Your task to perform on an android device: turn off location history Image 0: 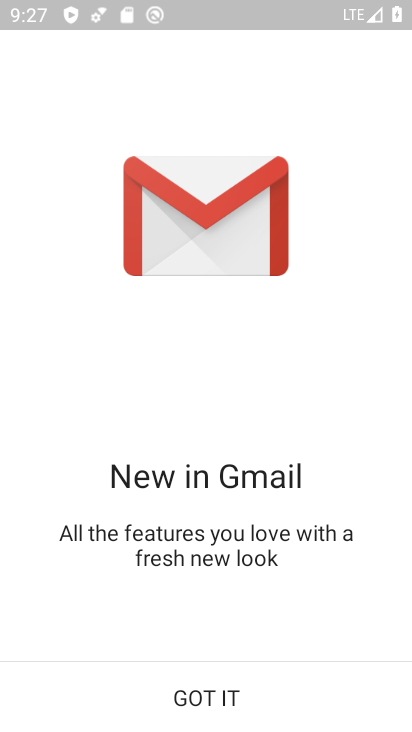
Step 0: press home button
Your task to perform on an android device: turn off location history Image 1: 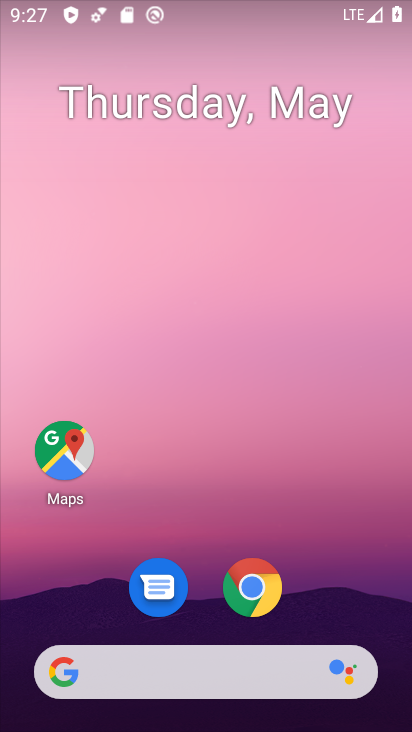
Step 1: click (57, 446)
Your task to perform on an android device: turn off location history Image 2: 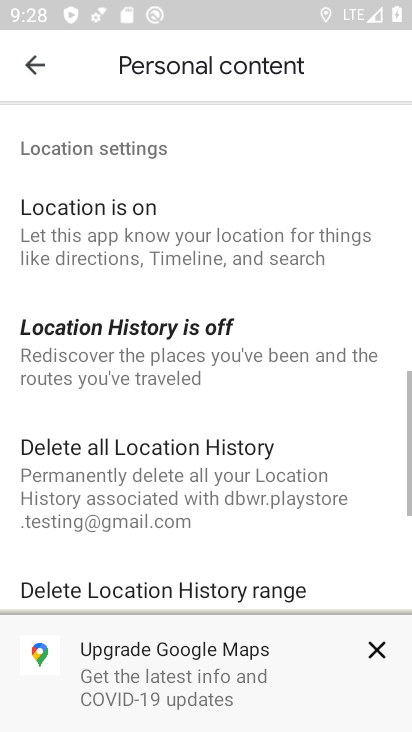
Step 2: click (112, 335)
Your task to perform on an android device: turn off location history Image 3: 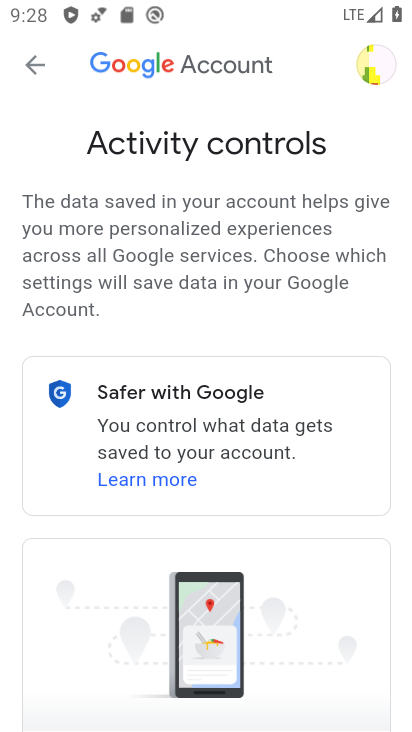
Step 3: drag from (292, 657) to (282, 111)
Your task to perform on an android device: turn off location history Image 4: 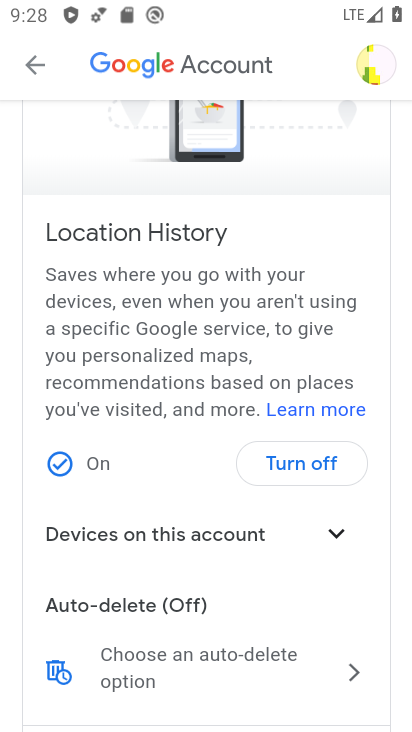
Step 4: click (293, 460)
Your task to perform on an android device: turn off location history Image 5: 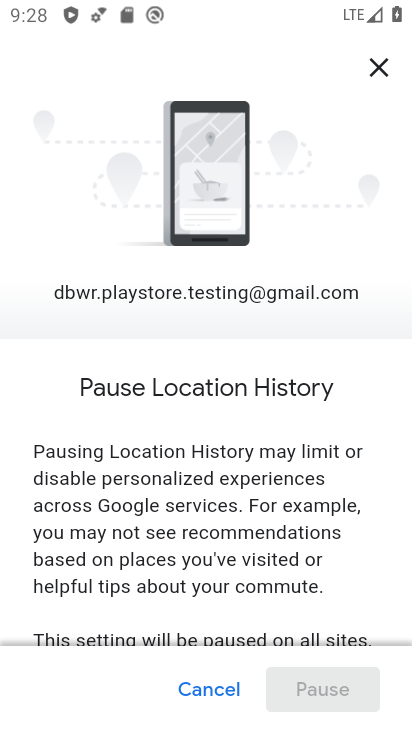
Step 5: drag from (170, 597) to (207, 92)
Your task to perform on an android device: turn off location history Image 6: 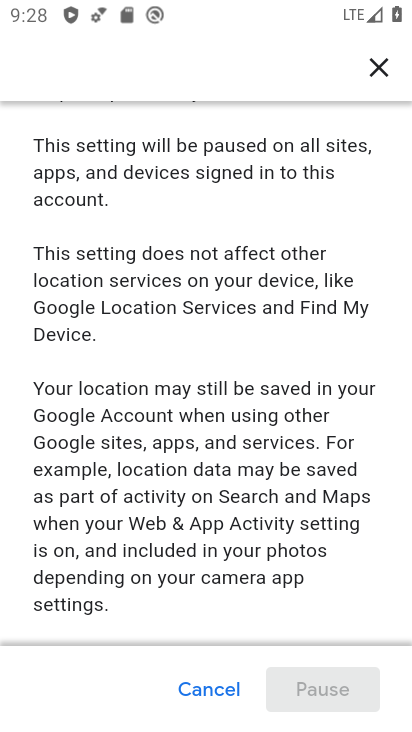
Step 6: drag from (170, 560) to (175, 133)
Your task to perform on an android device: turn off location history Image 7: 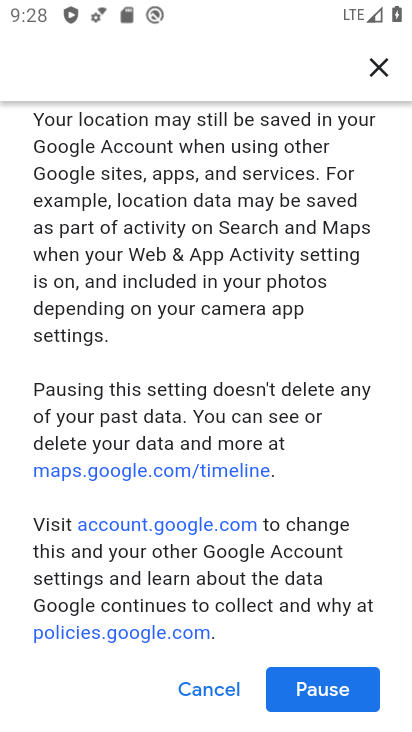
Step 7: click (317, 695)
Your task to perform on an android device: turn off location history Image 8: 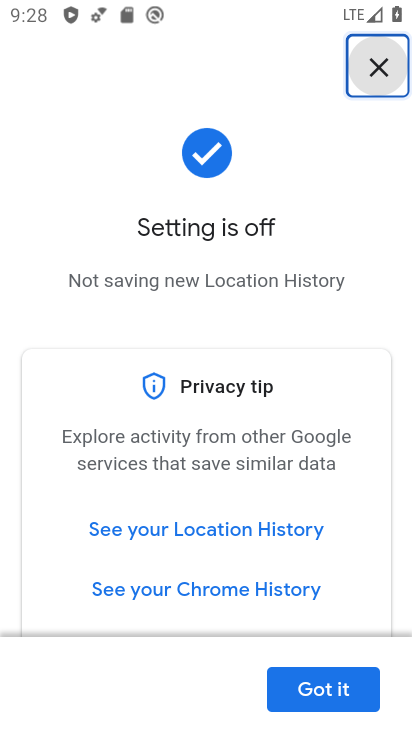
Step 8: click (317, 695)
Your task to perform on an android device: turn off location history Image 9: 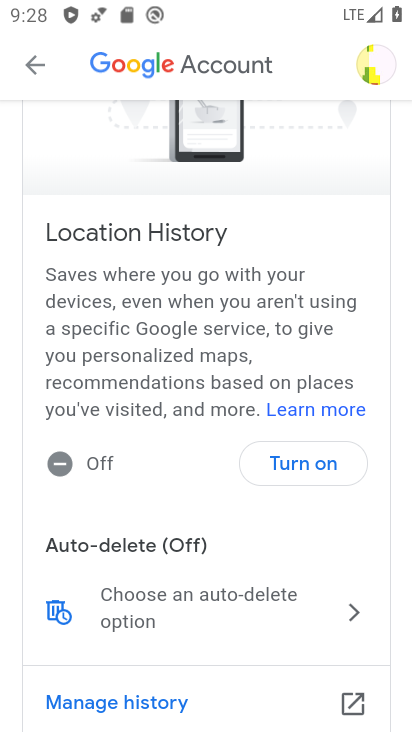
Step 9: task complete